Your task to perform on an android device: Do I have any events tomorrow? Image 0: 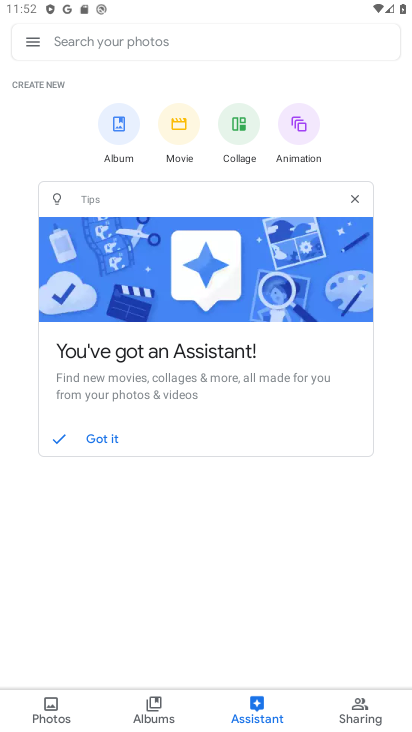
Step 0: press home button
Your task to perform on an android device: Do I have any events tomorrow? Image 1: 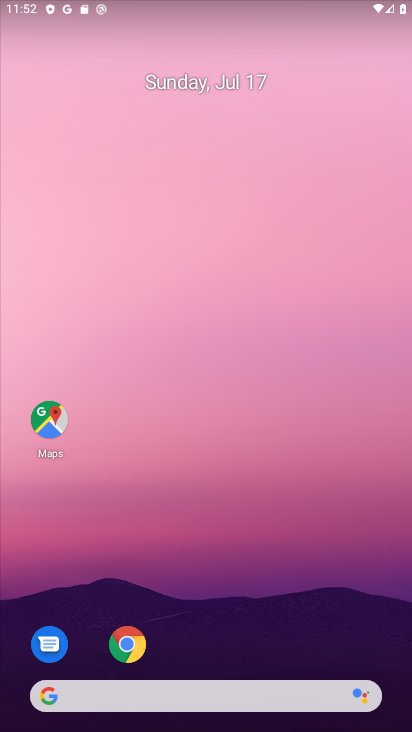
Step 1: drag from (281, 663) to (241, 111)
Your task to perform on an android device: Do I have any events tomorrow? Image 2: 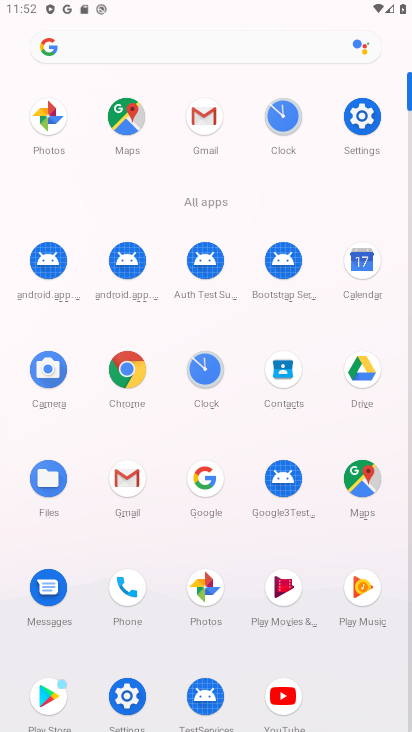
Step 2: click (351, 289)
Your task to perform on an android device: Do I have any events tomorrow? Image 3: 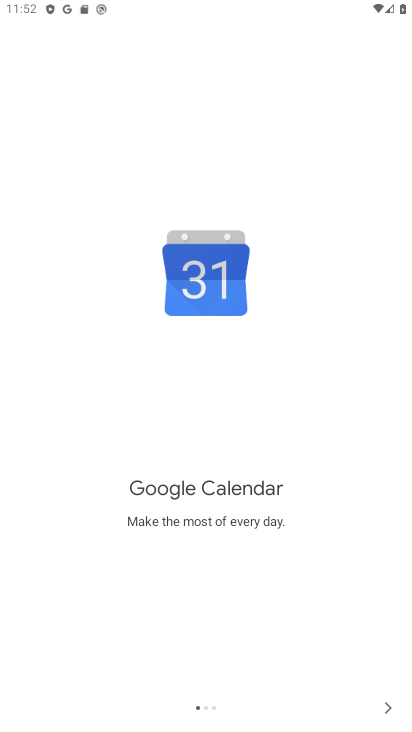
Step 3: click (391, 708)
Your task to perform on an android device: Do I have any events tomorrow? Image 4: 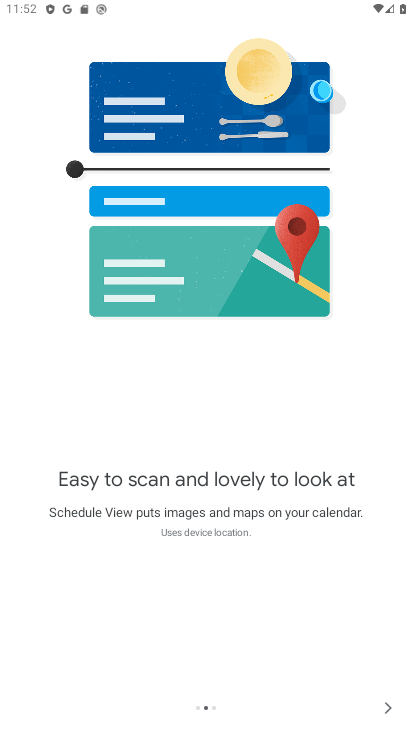
Step 4: click (391, 708)
Your task to perform on an android device: Do I have any events tomorrow? Image 5: 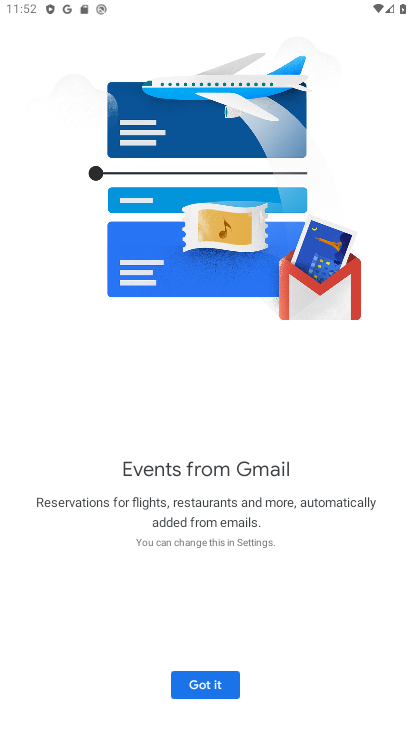
Step 5: click (224, 692)
Your task to perform on an android device: Do I have any events tomorrow? Image 6: 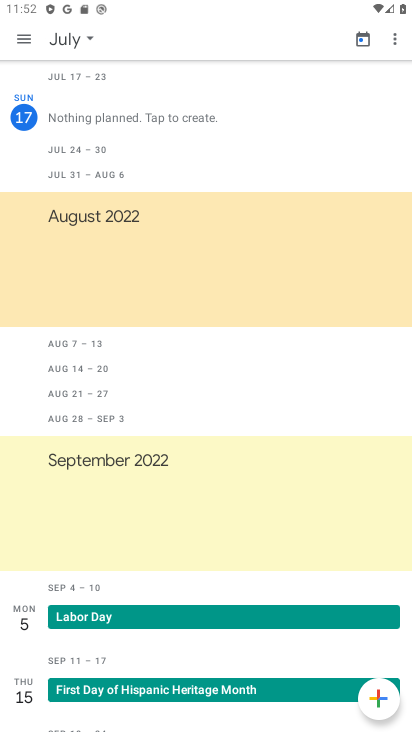
Step 6: click (22, 39)
Your task to perform on an android device: Do I have any events tomorrow? Image 7: 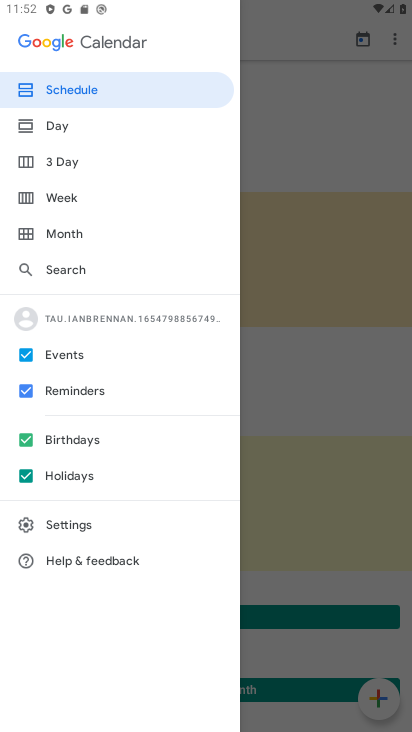
Step 7: click (25, 473)
Your task to perform on an android device: Do I have any events tomorrow? Image 8: 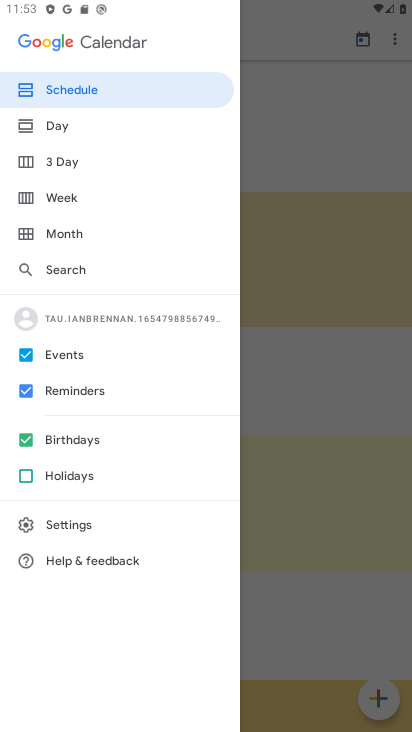
Step 8: click (25, 445)
Your task to perform on an android device: Do I have any events tomorrow? Image 9: 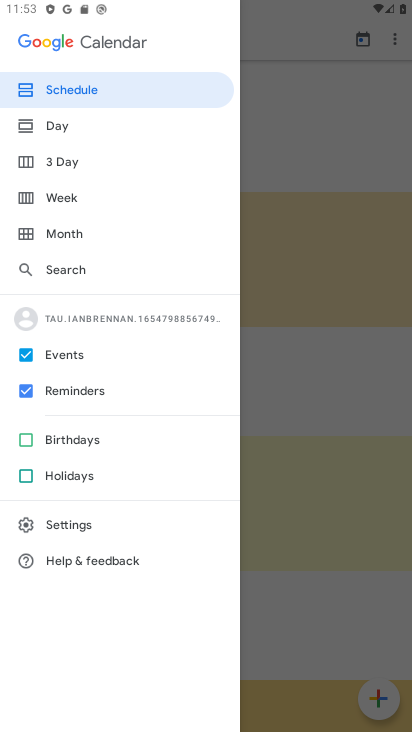
Step 9: click (23, 390)
Your task to perform on an android device: Do I have any events tomorrow? Image 10: 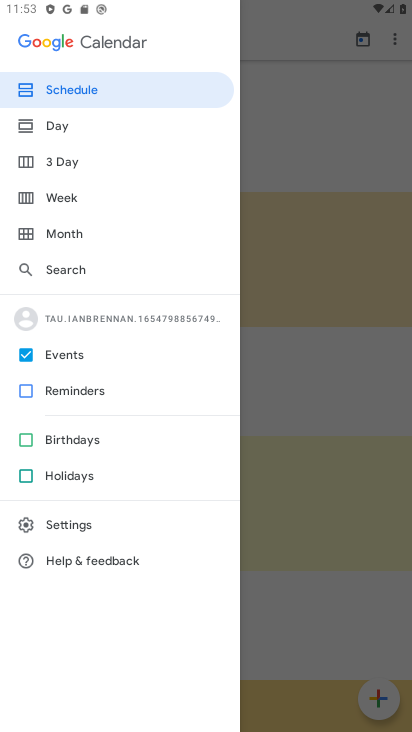
Step 10: click (119, 128)
Your task to perform on an android device: Do I have any events tomorrow? Image 11: 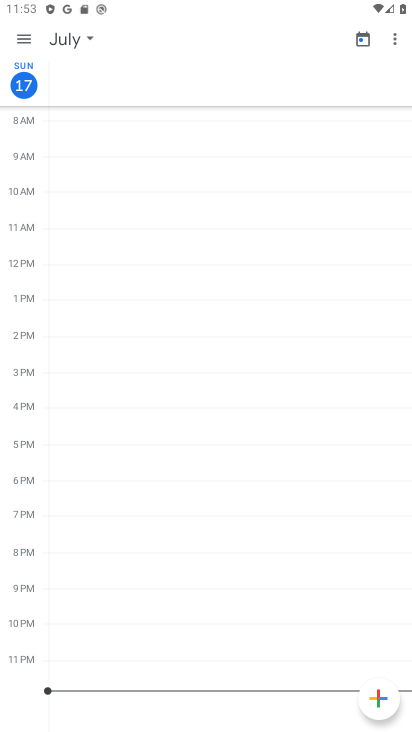
Step 11: task complete